Your task to perform on an android device: Open Google Maps Image 0: 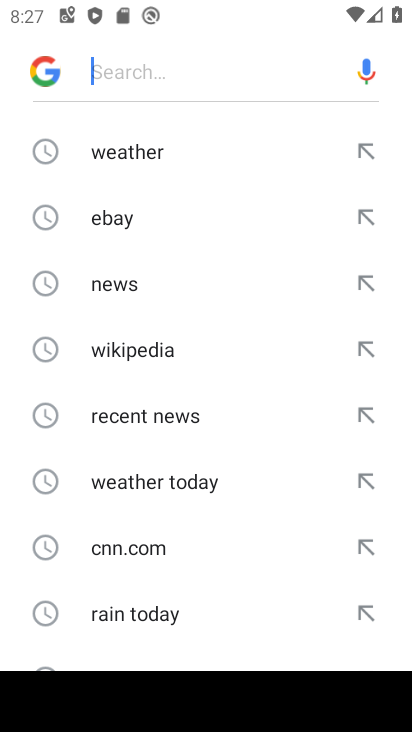
Step 0: press home button
Your task to perform on an android device: Open Google Maps Image 1: 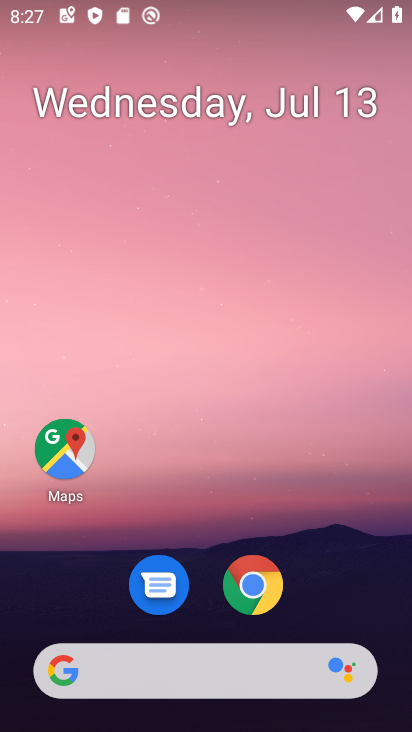
Step 1: click (64, 451)
Your task to perform on an android device: Open Google Maps Image 2: 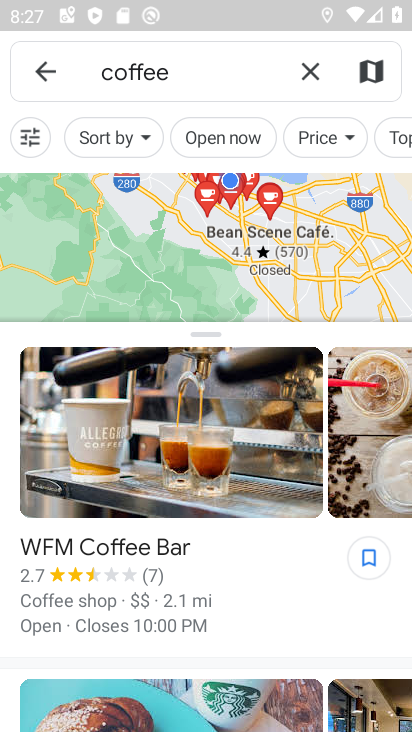
Step 2: click (304, 70)
Your task to perform on an android device: Open Google Maps Image 3: 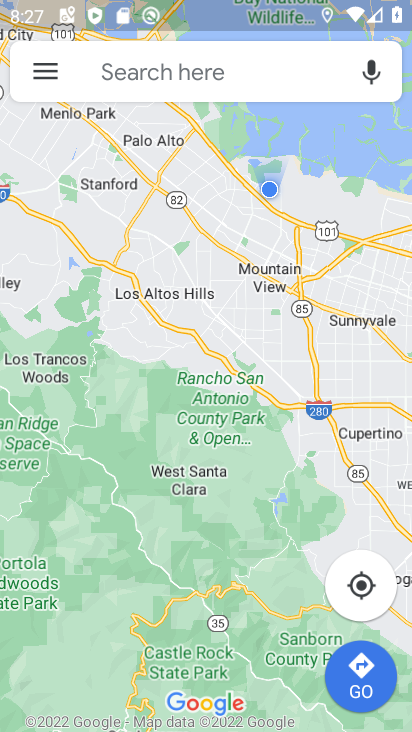
Step 3: task complete